Your task to perform on an android device: Go to privacy settings Image 0: 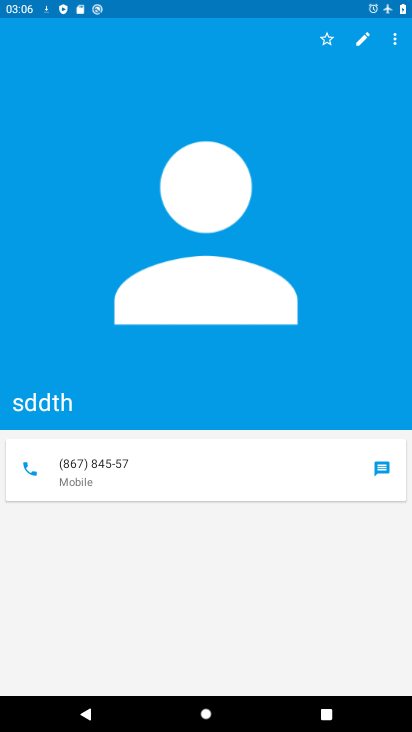
Step 0: press home button
Your task to perform on an android device: Go to privacy settings Image 1: 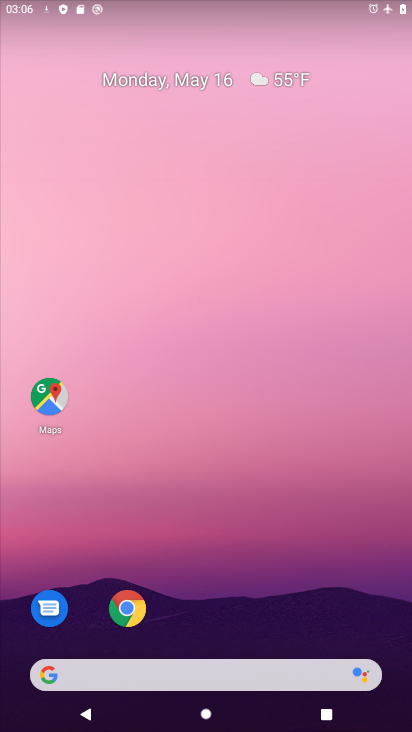
Step 1: drag from (215, 625) to (223, 238)
Your task to perform on an android device: Go to privacy settings Image 2: 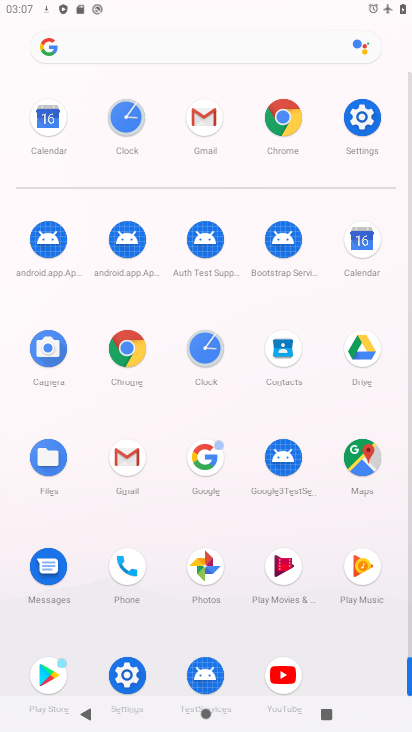
Step 2: click (347, 119)
Your task to perform on an android device: Go to privacy settings Image 3: 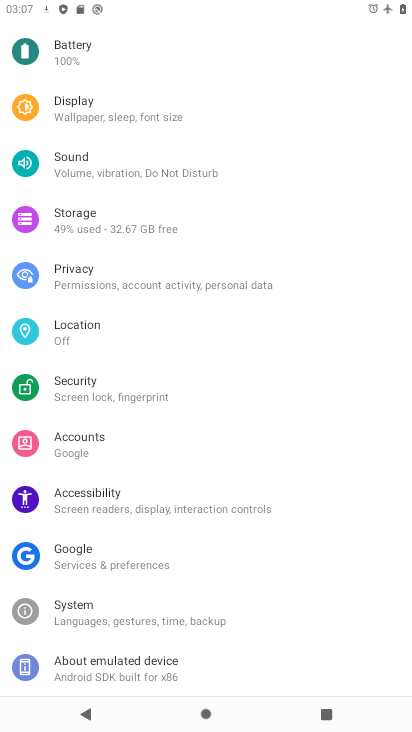
Step 3: click (115, 273)
Your task to perform on an android device: Go to privacy settings Image 4: 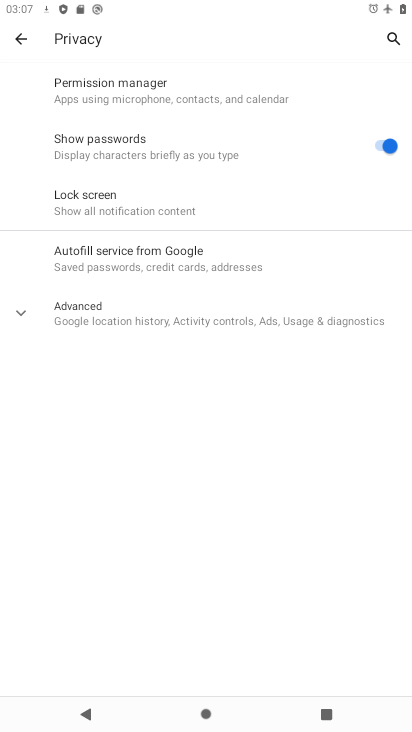
Step 4: task complete